Your task to perform on an android device: Search for pizza restaurants on Maps Image 0: 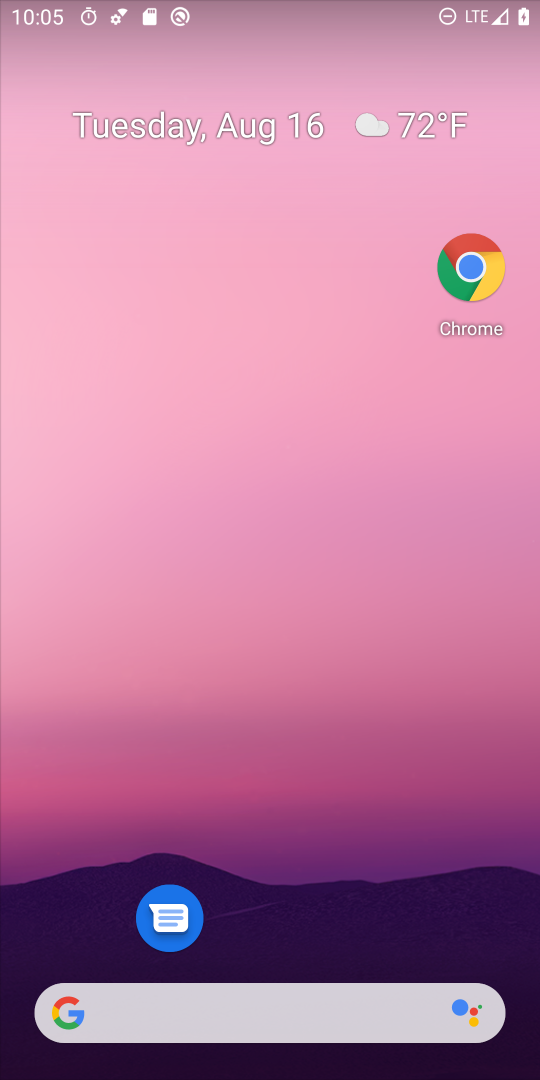
Step 0: drag from (269, 945) to (305, 172)
Your task to perform on an android device: Search for pizza restaurants on Maps Image 1: 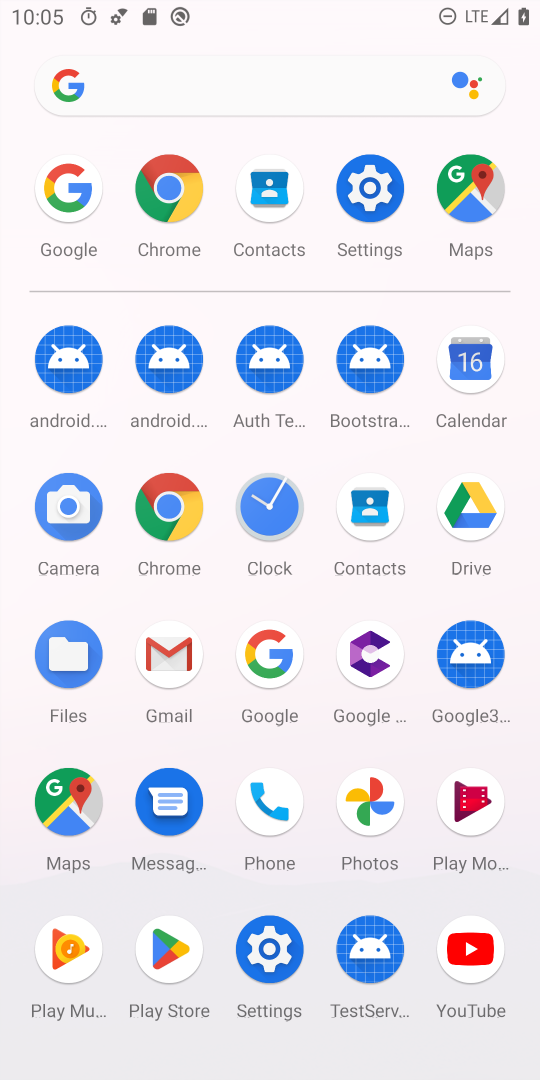
Step 1: click (91, 816)
Your task to perform on an android device: Search for pizza restaurants on Maps Image 2: 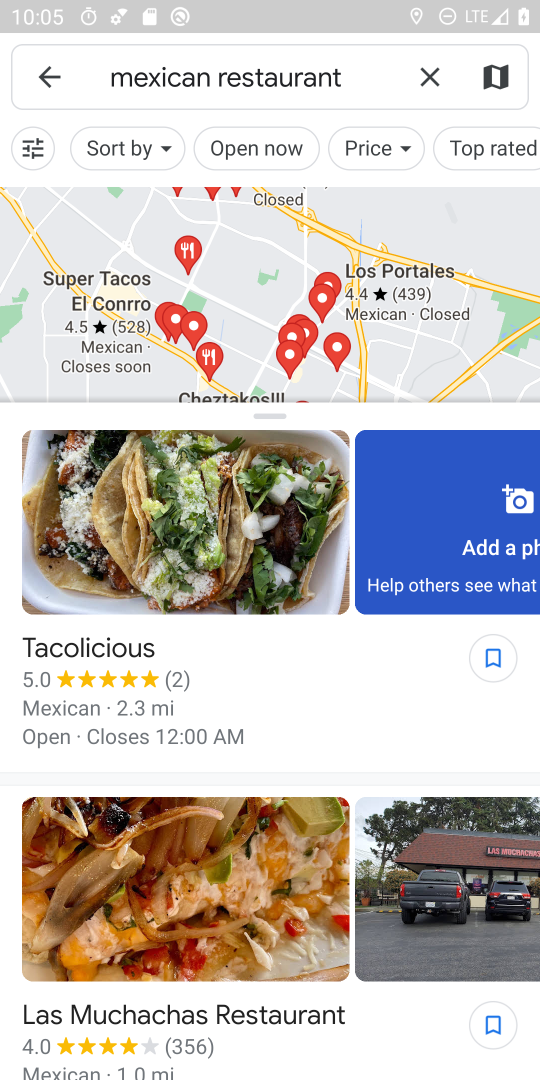
Step 2: click (427, 81)
Your task to perform on an android device: Search for pizza restaurants on Maps Image 3: 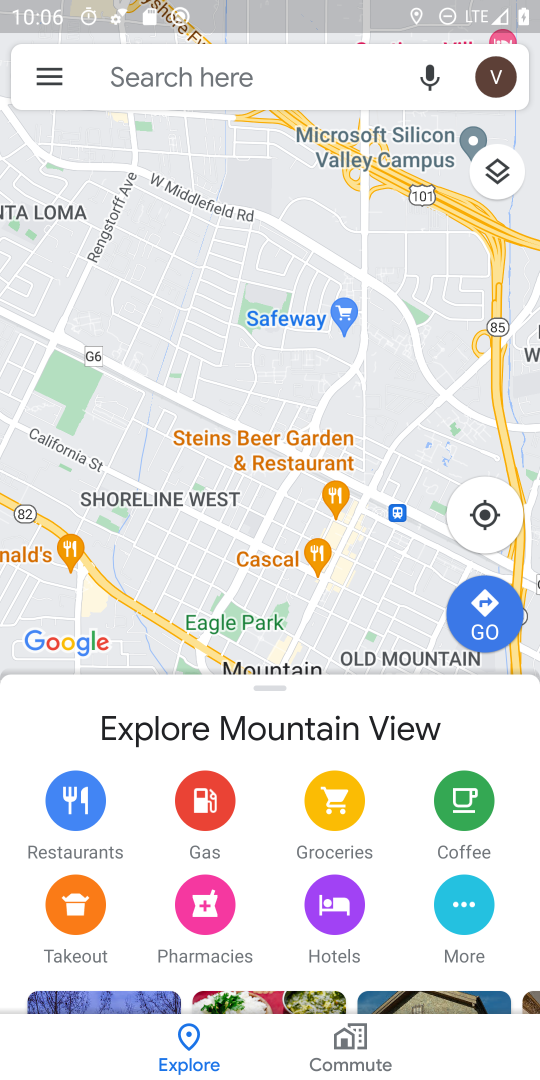
Step 3: click (271, 72)
Your task to perform on an android device: Search for pizza restaurants on Maps Image 4: 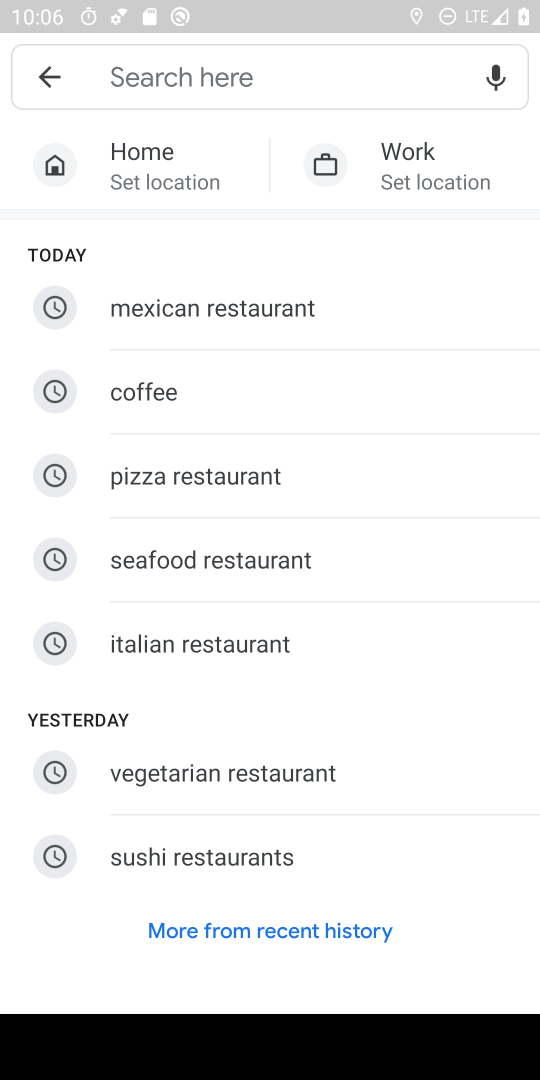
Step 4: click (263, 472)
Your task to perform on an android device: Search for pizza restaurants on Maps Image 5: 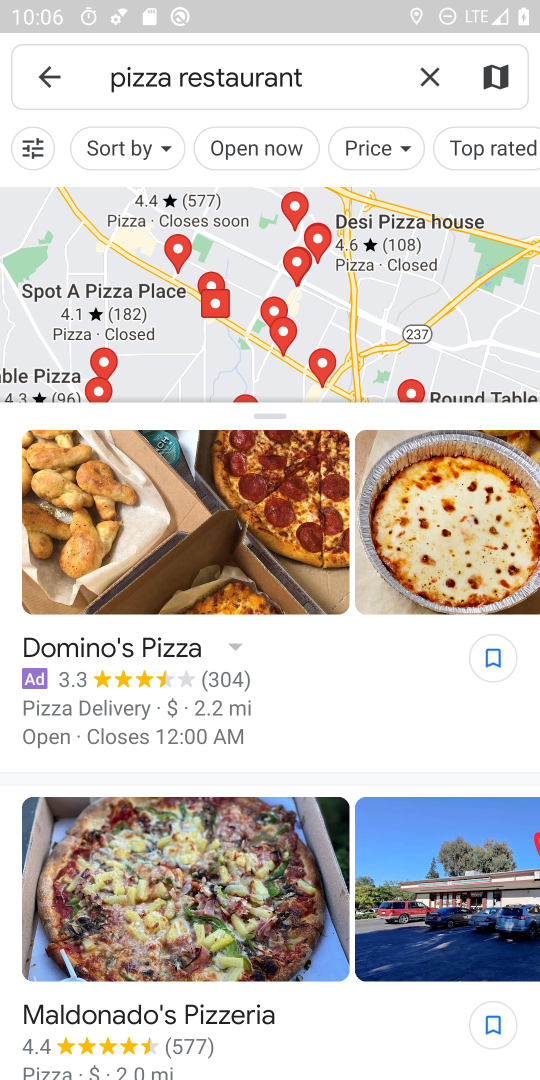
Step 5: task complete